Your task to perform on an android device: Check the weather Image 0: 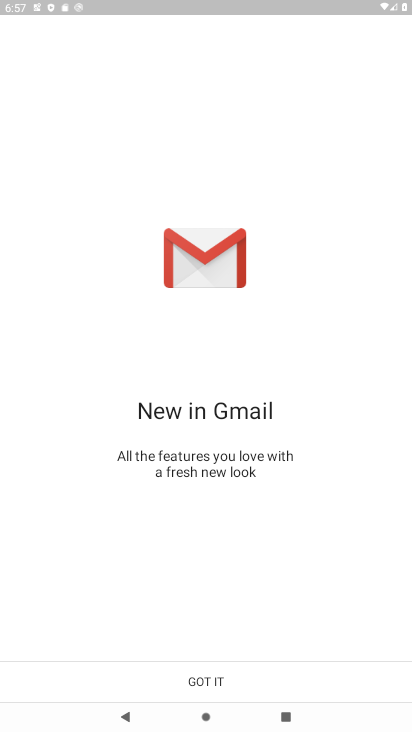
Step 0: press home button
Your task to perform on an android device: Check the weather Image 1: 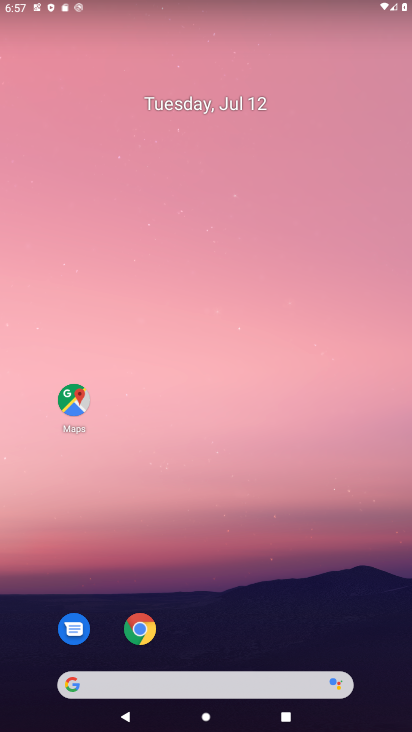
Step 1: click (259, 697)
Your task to perform on an android device: Check the weather Image 2: 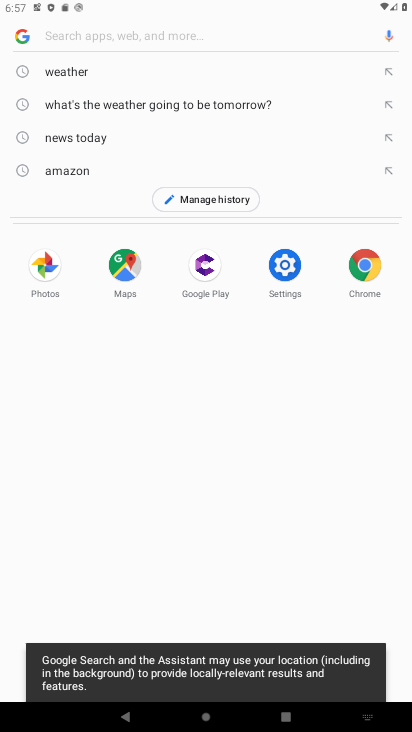
Step 2: click (76, 74)
Your task to perform on an android device: Check the weather Image 3: 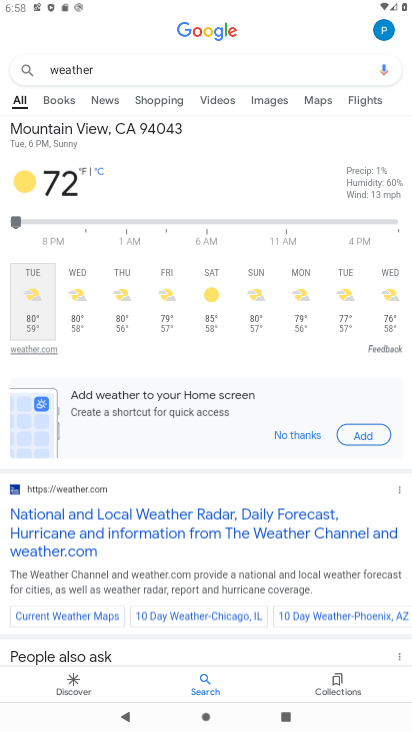
Step 3: task complete